Your task to perform on an android device: turn vacation reply on in the gmail app Image 0: 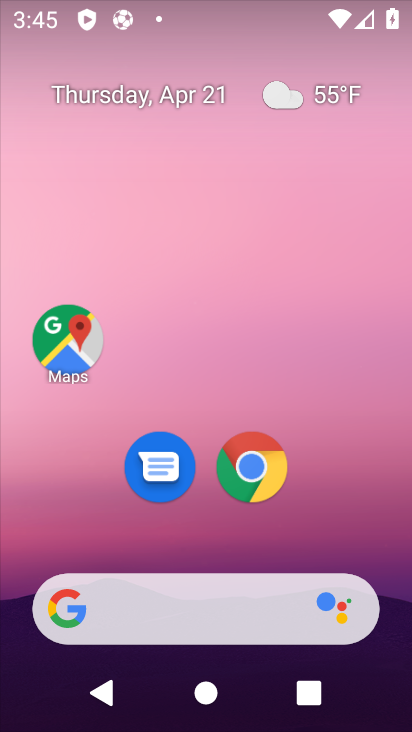
Step 0: drag from (229, 714) to (178, 230)
Your task to perform on an android device: turn vacation reply on in the gmail app Image 1: 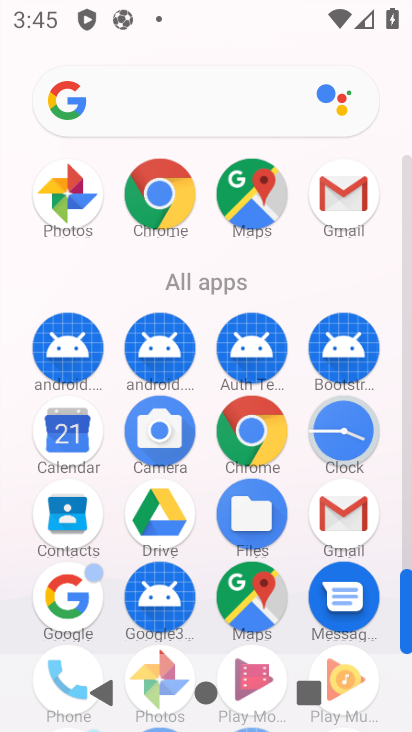
Step 1: click (352, 209)
Your task to perform on an android device: turn vacation reply on in the gmail app Image 2: 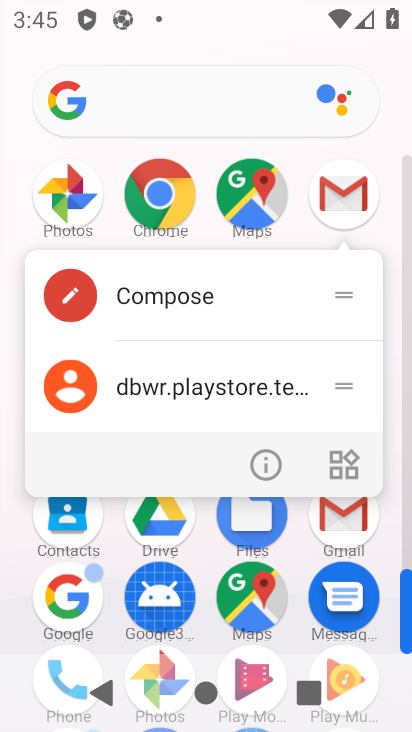
Step 2: click (352, 209)
Your task to perform on an android device: turn vacation reply on in the gmail app Image 3: 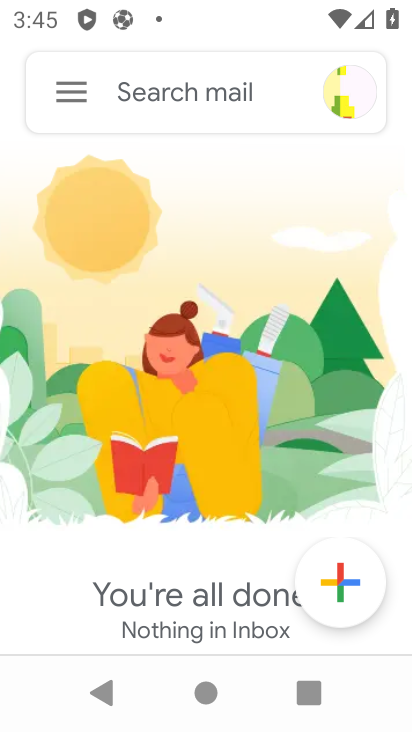
Step 3: click (69, 93)
Your task to perform on an android device: turn vacation reply on in the gmail app Image 4: 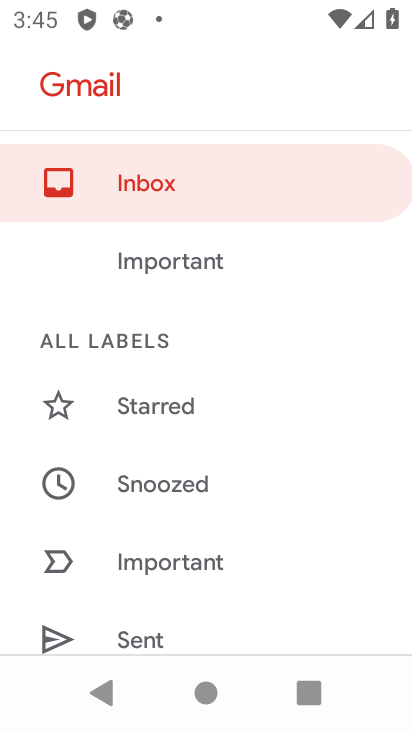
Step 4: task complete